Your task to perform on an android device: delete browsing data in the chrome app Image 0: 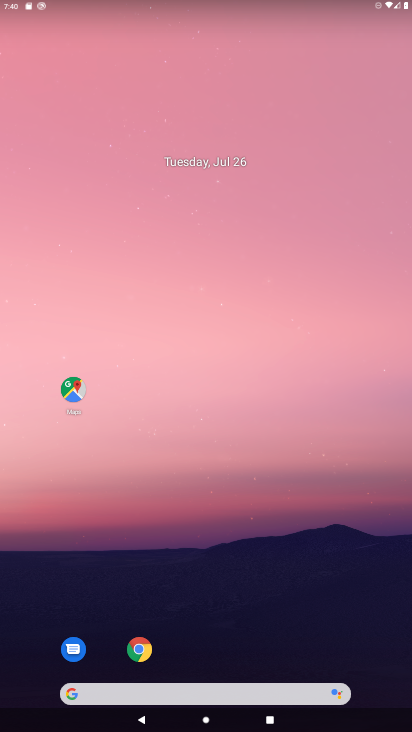
Step 0: drag from (260, 660) to (316, 234)
Your task to perform on an android device: delete browsing data in the chrome app Image 1: 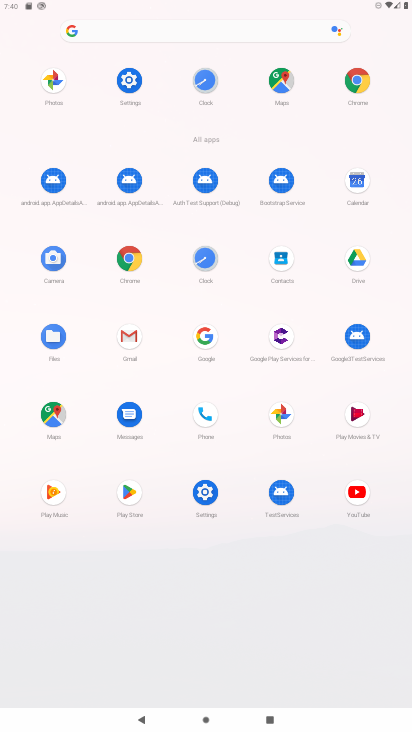
Step 1: click (127, 247)
Your task to perform on an android device: delete browsing data in the chrome app Image 2: 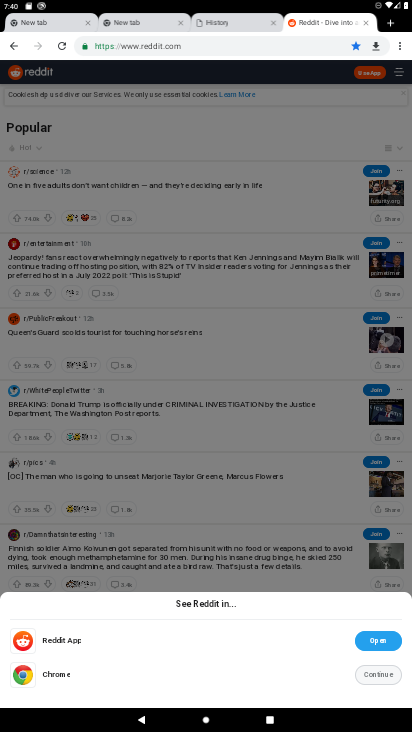
Step 2: click (403, 48)
Your task to perform on an android device: delete browsing data in the chrome app Image 3: 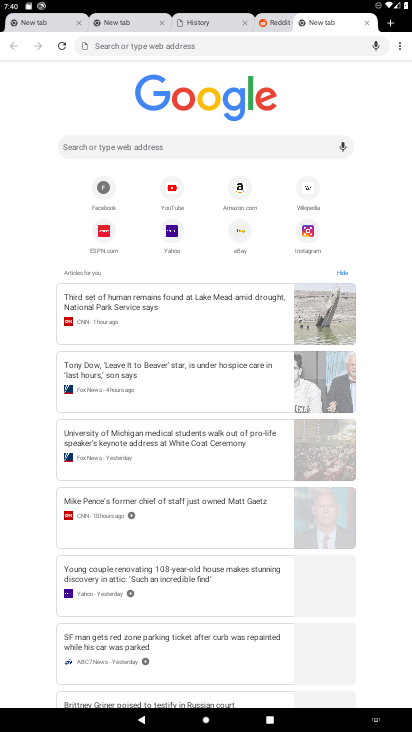
Step 3: click (406, 51)
Your task to perform on an android device: delete browsing data in the chrome app Image 4: 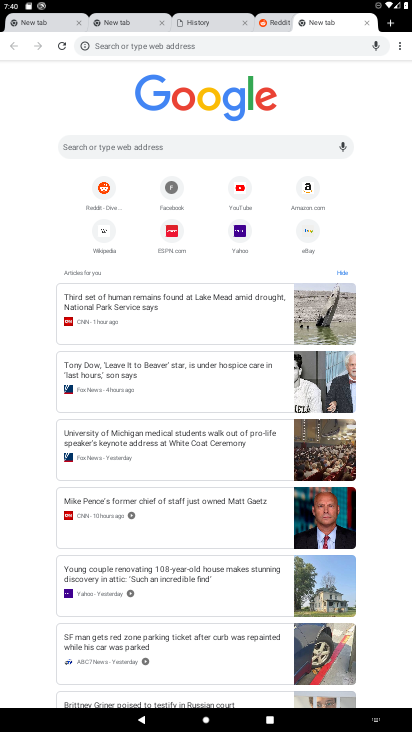
Step 4: click (406, 51)
Your task to perform on an android device: delete browsing data in the chrome app Image 5: 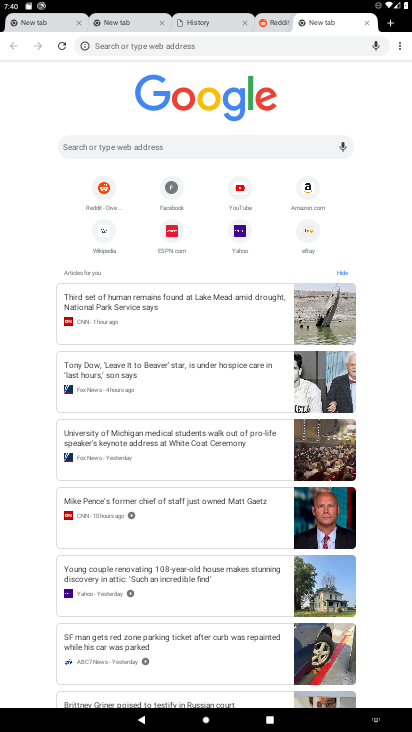
Step 5: click (400, 43)
Your task to perform on an android device: delete browsing data in the chrome app Image 6: 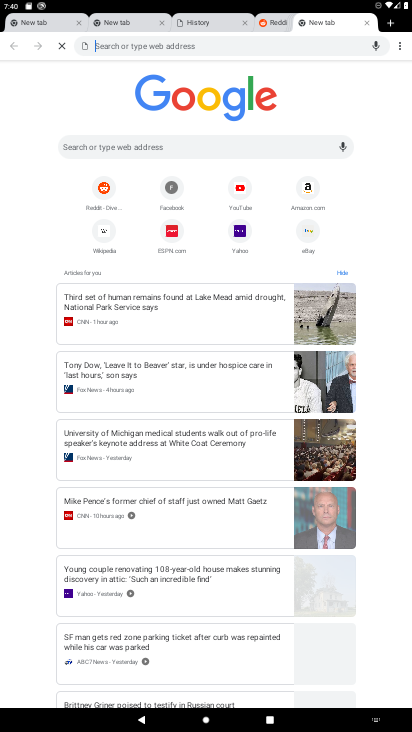
Step 6: click (400, 43)
Your task to perform on an android device: delete browsing data in the chrome app Image 7: 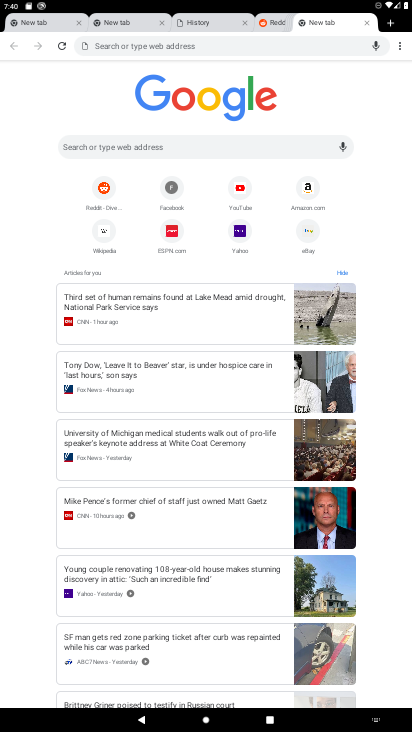
Step 7: click (400, 43)
Your task to perform on an android device: delete browsing data in the chrome app Image 8: 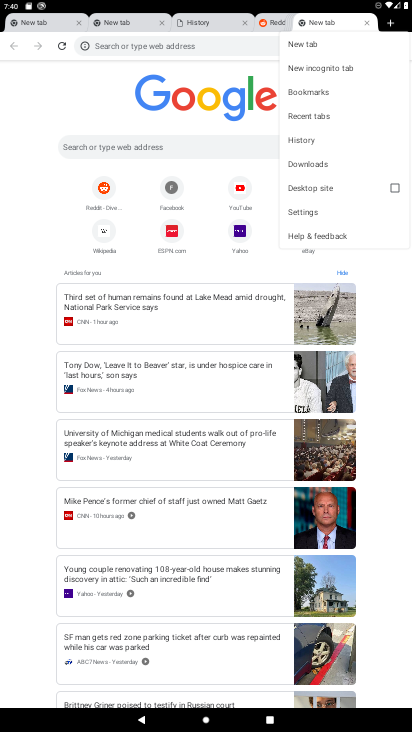
Step 8: click (309, 210)
Your task to perform on an android device: delete browsing data in the chrome app Image 9: 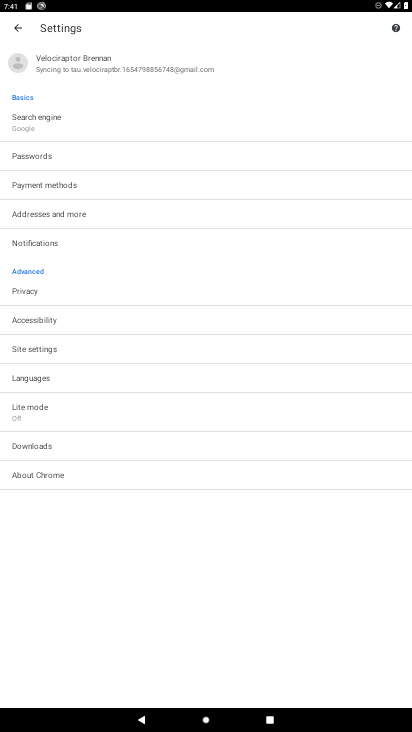
Step 9: click (49, 345)
Your task to perform on an android device: delete browsing data in the chrome app Image 10: 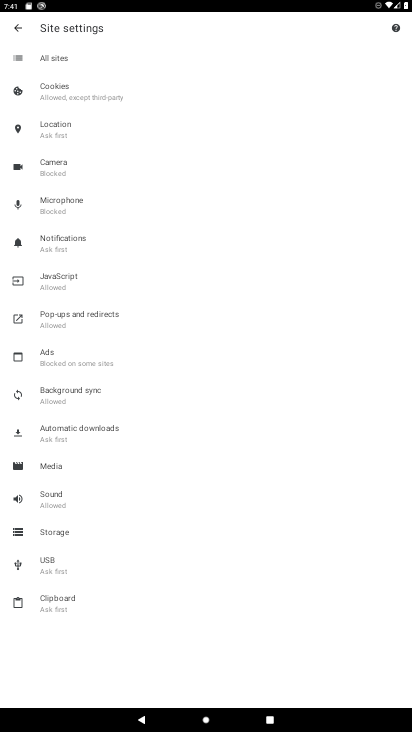
Step 10: click (27, 32)
Your task to perform on an android device: delete browsing data in the chrome app Image 11: 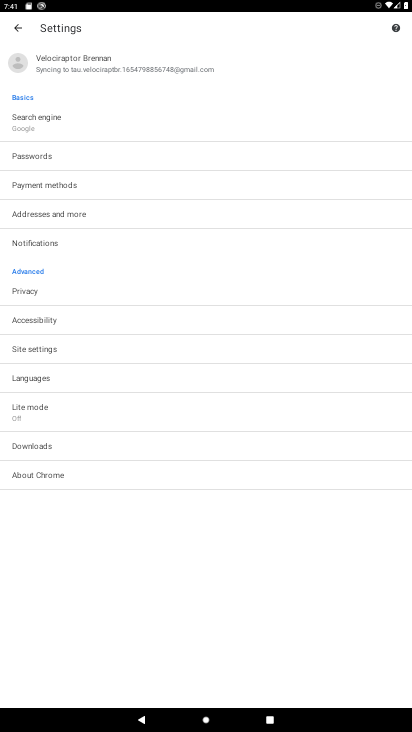
Step 11: click (43, 297)
Your task to perform on an android device: delete browsing data in the chrome app Image 12: 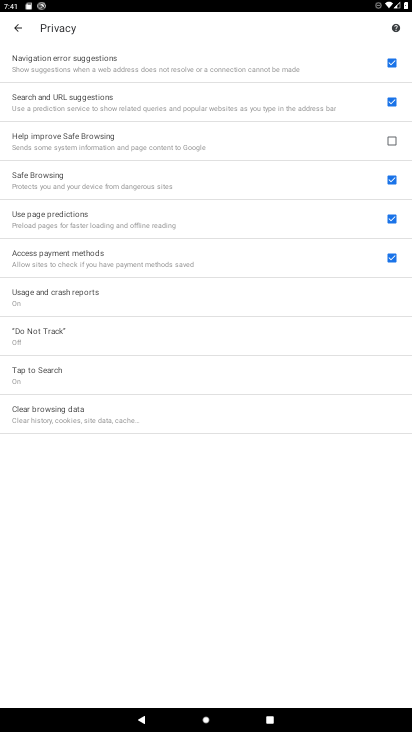
Step 12: click (131, 409)
Your task to perform on an android device: delete browsing data in the chrome app Image 13: 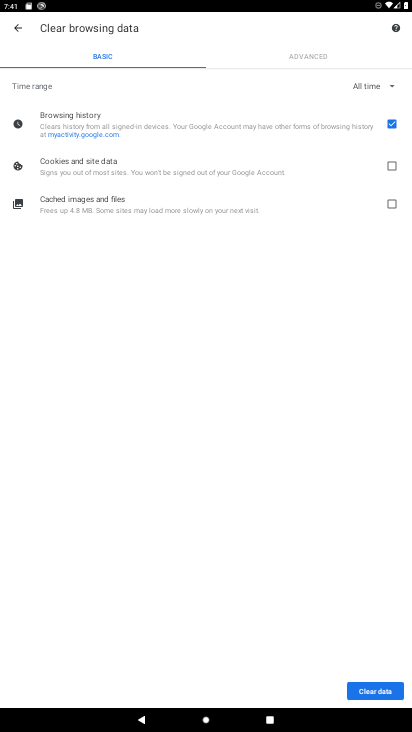
Step 13: click (366, 687)
Your task to perform on an android device: delete browsing data in the chrome app Image 14: 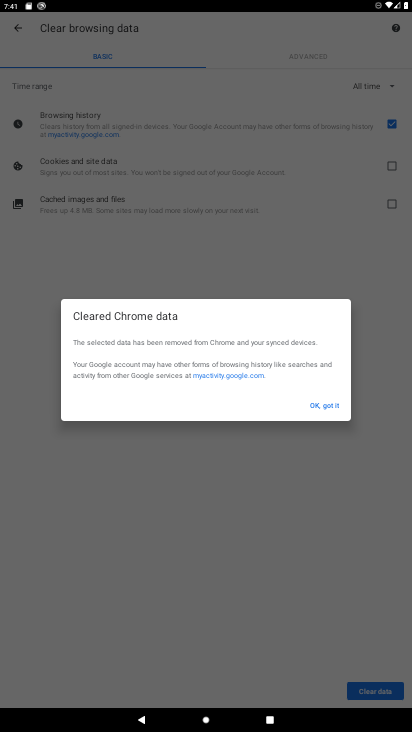
Step 14: click (318, 403)
Your task to perform on an android device: delete browsing data in the chrome app Image 15: 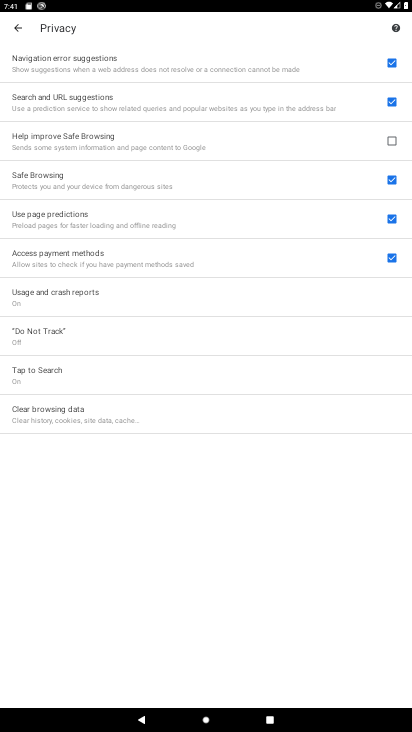
Step 15: click (163, 405)
Your task to perform on an android device: delete browsing data in the chrome app Image 16: 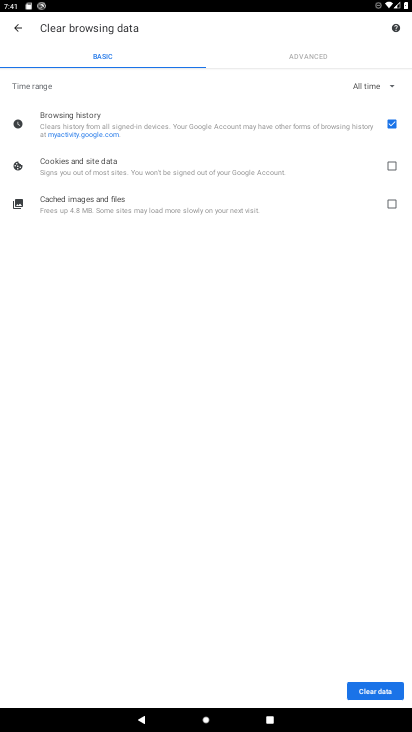
Step 16: click (393, 167)
Your task to perform on an android device: delete browsing data in the chrome app Image 17: 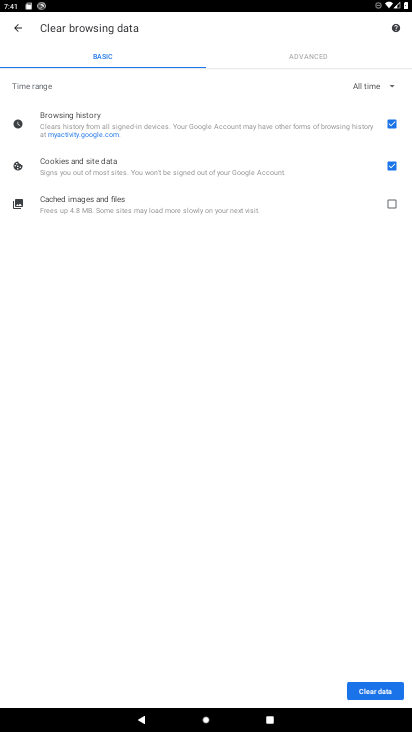
Step 17: click (385, 203)
Your task to perform on an android device: delete browsing data in the chrome app Image 18: 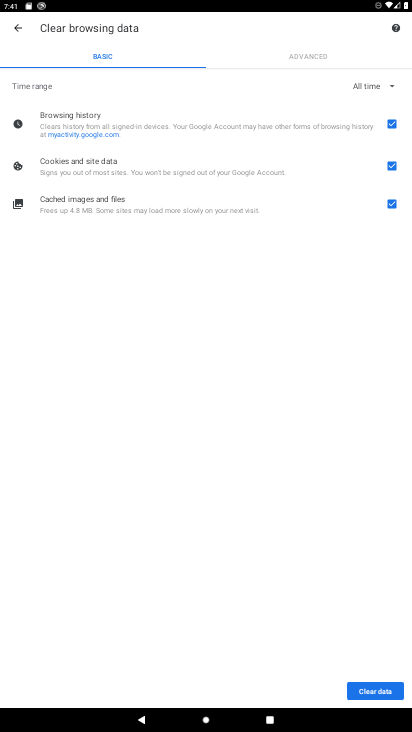
Step 18: click (372, 678)
Your task to perform on an android device: delete browsing data in the chrome app Image 19: 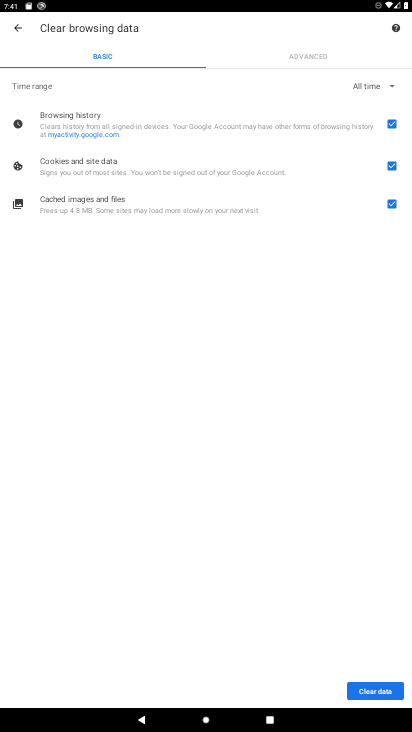
Step 19: click (365, 686)
Your task to perform on an android device: delete browsing data in the chrome app Image 20: 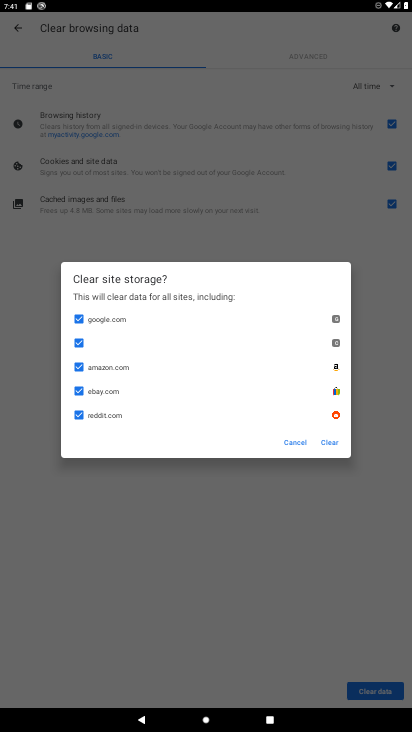
Step 20: click (333, 440)
Your task to perform on an android device: delete browsing data in the chrome app Image 21: 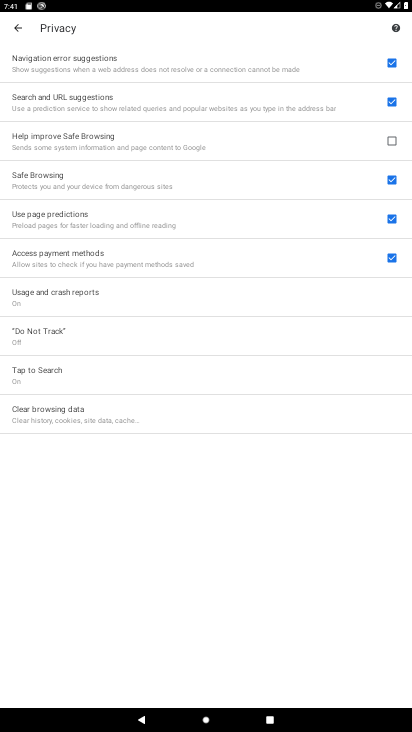
Step 21: task complete